Your task to perform on an android device: toggle javascript in the chrome app Image 0: 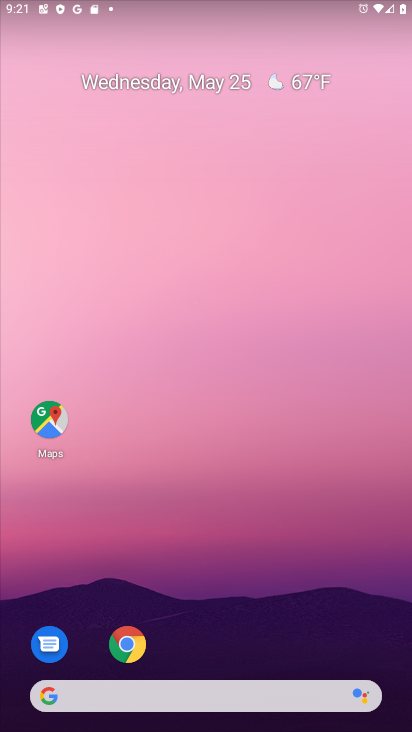
Step 0: press home button
Your task to perform on an android device: toggle javascript in the chrome app Image 1: 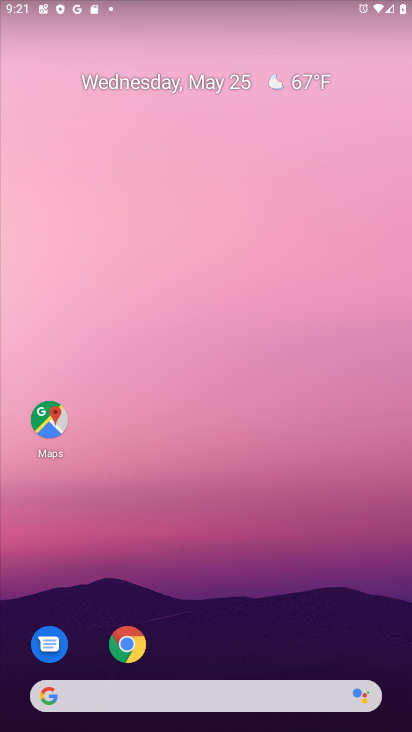
Step 1: click (125, 636)
Your task to perform on an android device: toggle javascript in the chrome app Image 2: 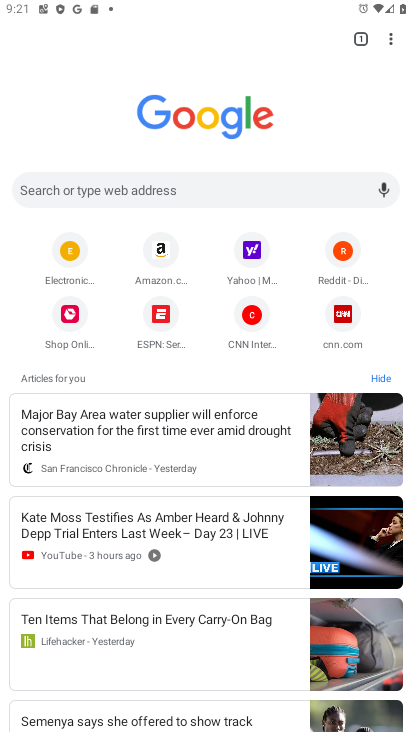
Step 2: click (387, 35)
Your task to perform on an android device: toggle javascript in the chrome app Image 3: 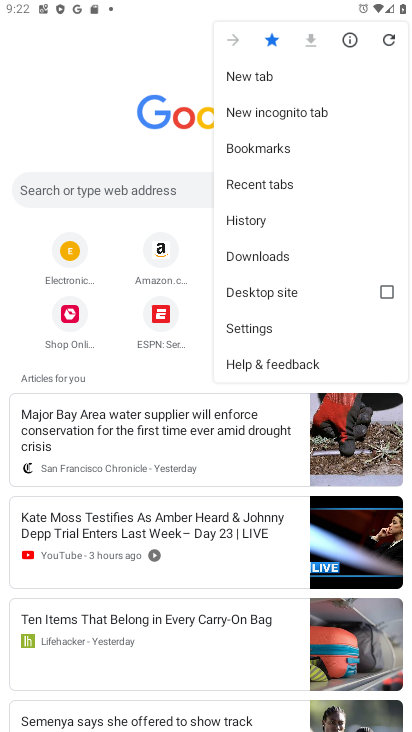
Step 3: click (285, 324)
Your task to perform on an android device: toggle javascript in the chrome app Image 4: 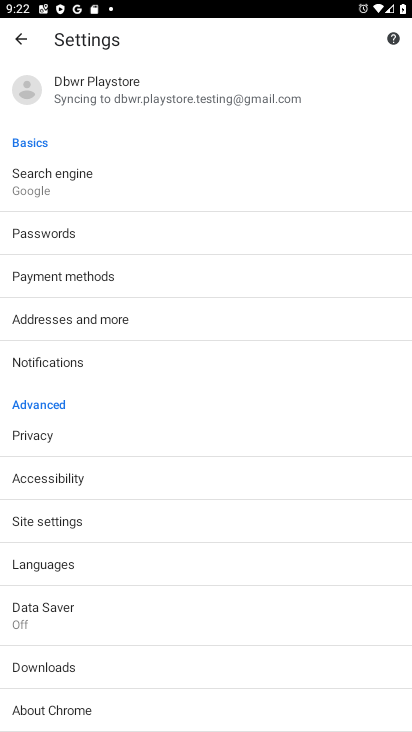
Step 4: click (94, 528)
Your task to perform on an android device: toggle javascript in the chrome app Image 5: 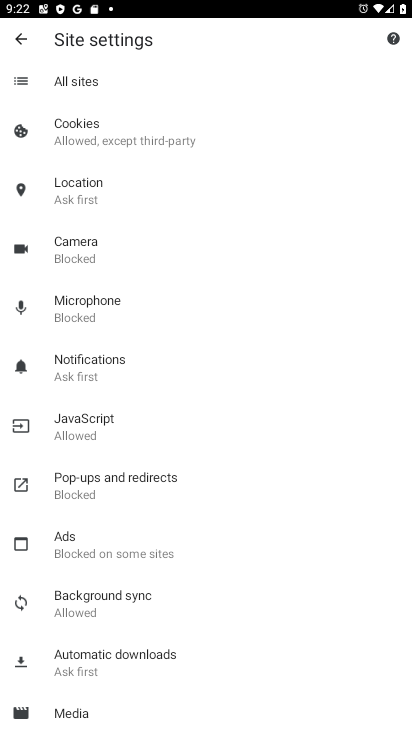
Step 5: click (120, 419)
Your task to perform on an android device: toggle javascript in the chrome app Image 6: 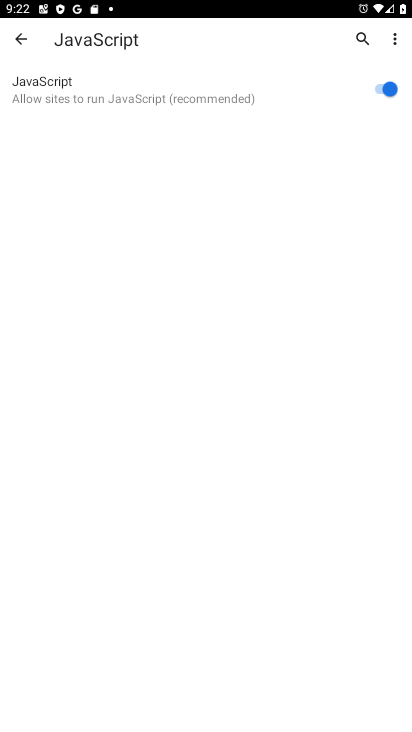
Step 6: click (378, 87)
Your task to perform on an android device: toggle javascript in the chrome app Image 7: 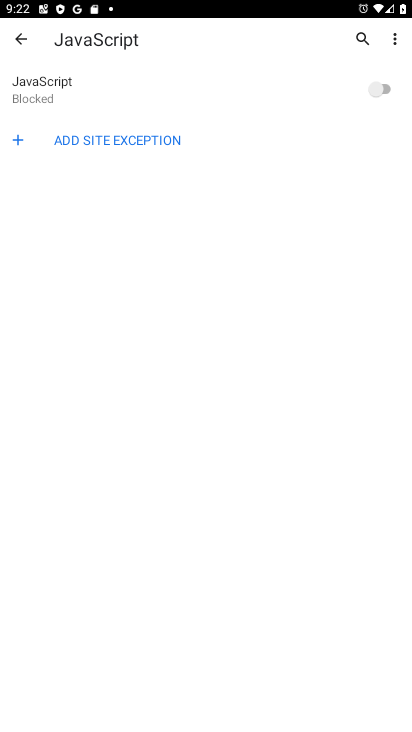
Step 7: task complete